Your task to perform on an android device: What is the news today? Image 0: 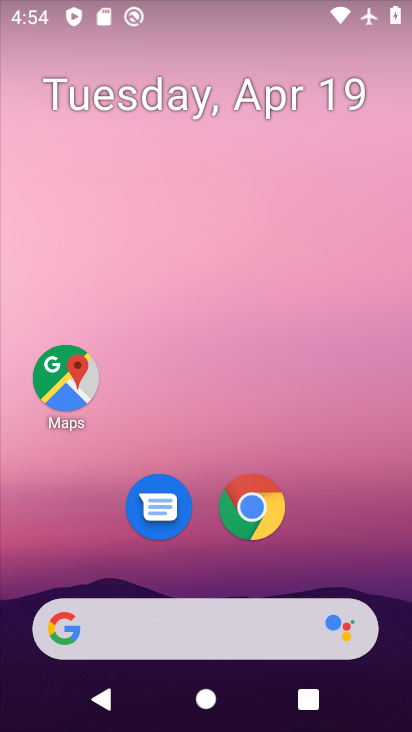
Step 0: drag from (309, 523) to (231, 57)
Your task to perform on an android device: What is the news today? Image 1: 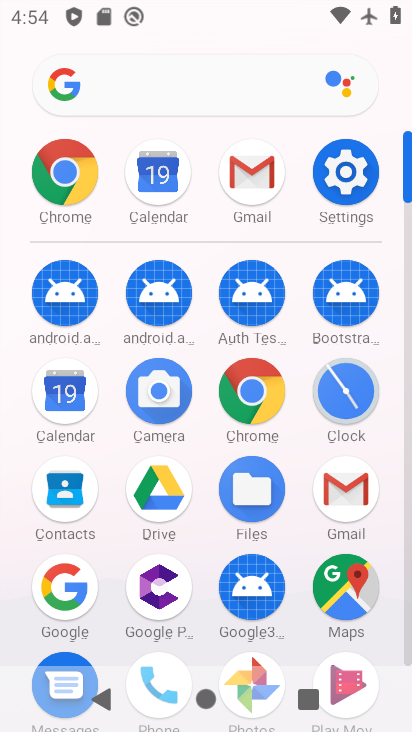
Step 1: click (241, 404)
Your task to perform on an android device: What is the news today? Image 2: 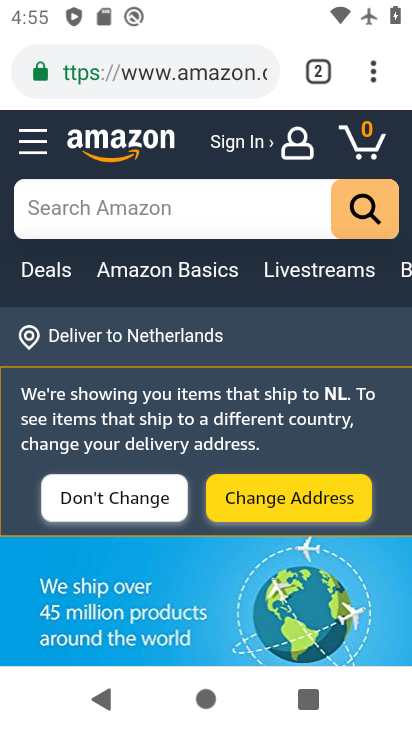
Step 2: click (162, 84)
Your task to perform on an android device: What is the news today? Image 3: 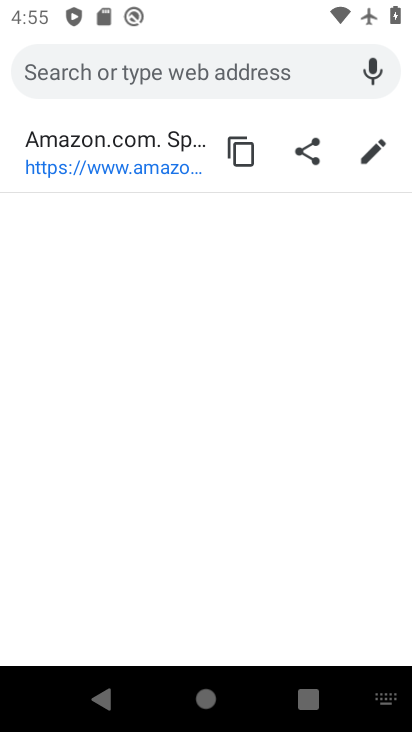
Step 3: type "news"
Your task to perform on an android device: What is the news today? Image 4: 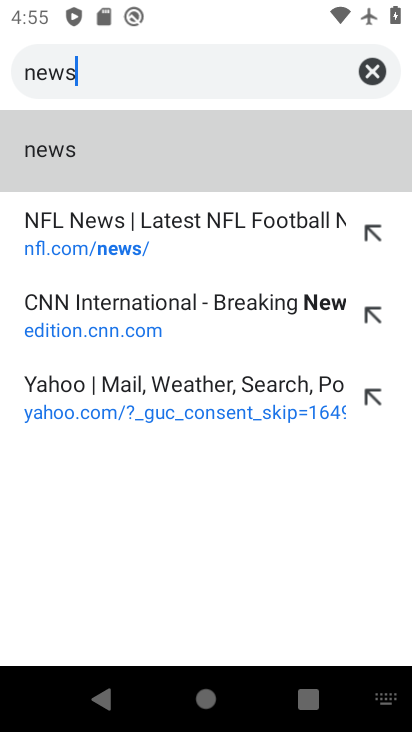
Step 4: click (49, 147)
Your task to perform on an android device: What is the news today? Image 5: 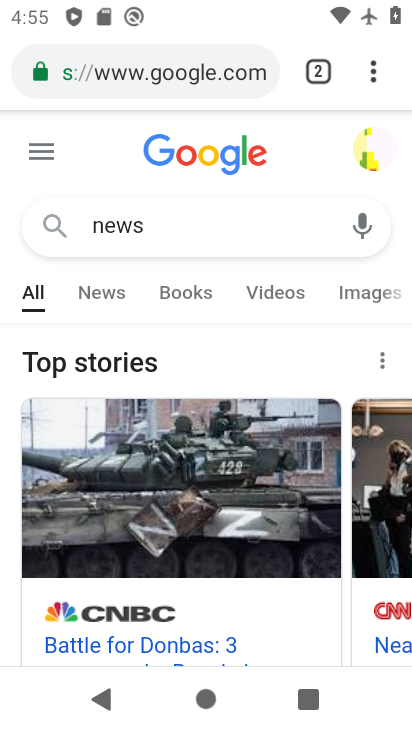
Step 5: click (117, 291)
Your task to perform on an android device: What is the news today? Image 6: 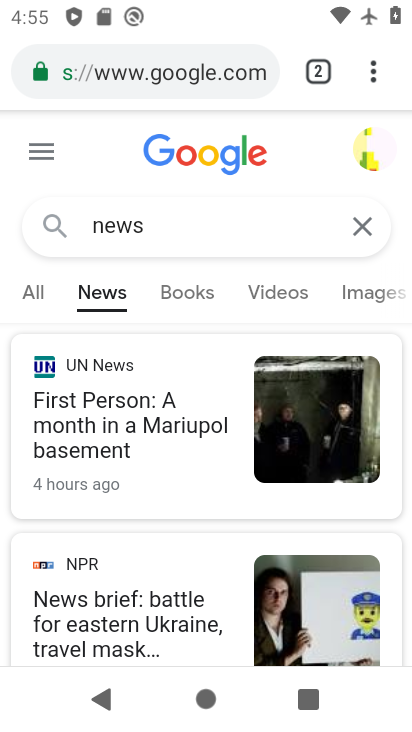
Step 6: task complete